Your task to perform on an android device: toggle notifications settings in the gmail app Image 0: 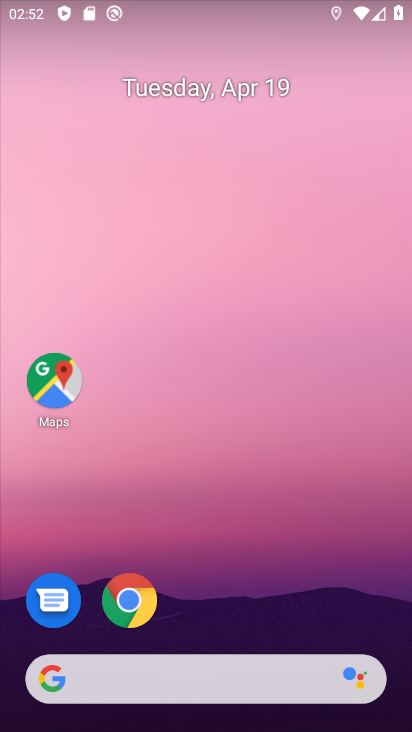
Step 0: click (309, 110)
Your task to perform on an android device: toggle notifications settings in the gmail app Image 1: 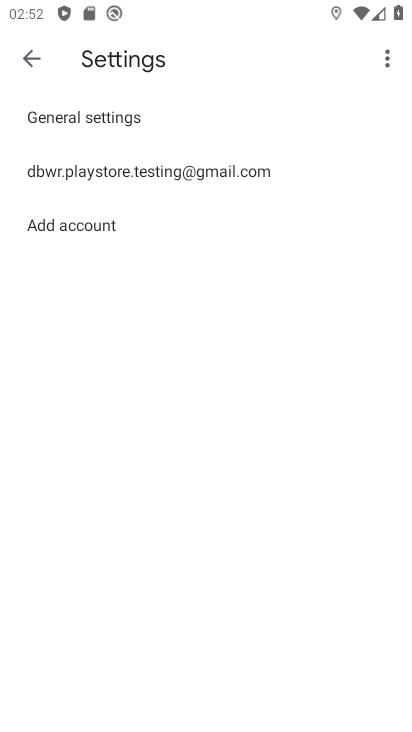
Step 1: press home button
Your task to perform on an android device: toggle notifications settings in the gmail app Image 2: 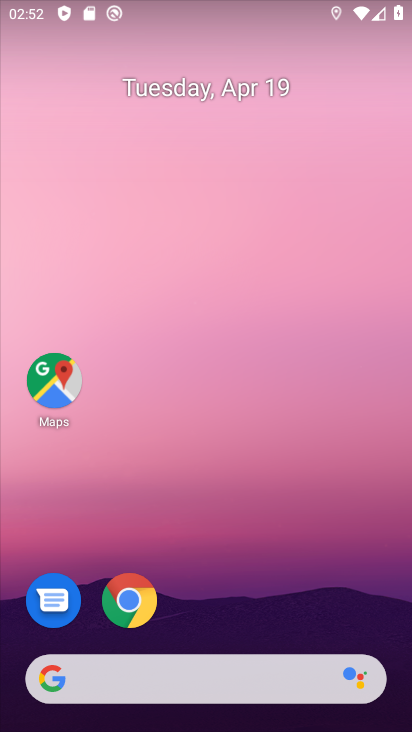
Step 2: drag from (310, 619) to (258, 181)
Your task to perform on an android device: toggle notifications settings in the gmail app Image 3: 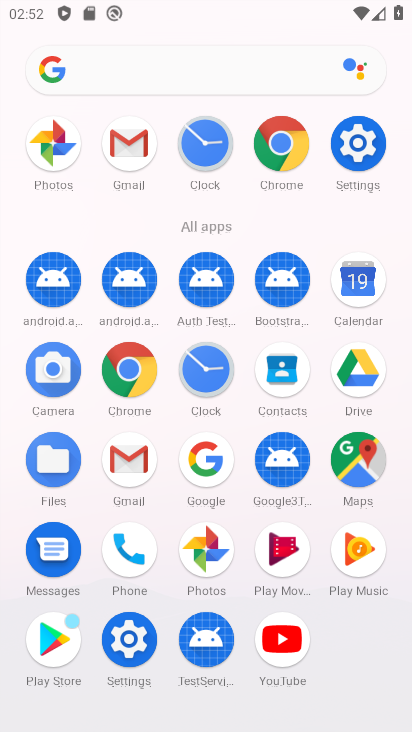
Step 3: click (124, 145)
Your task to perform on an android device: toggle notifications settings in the gmail app Image 4: 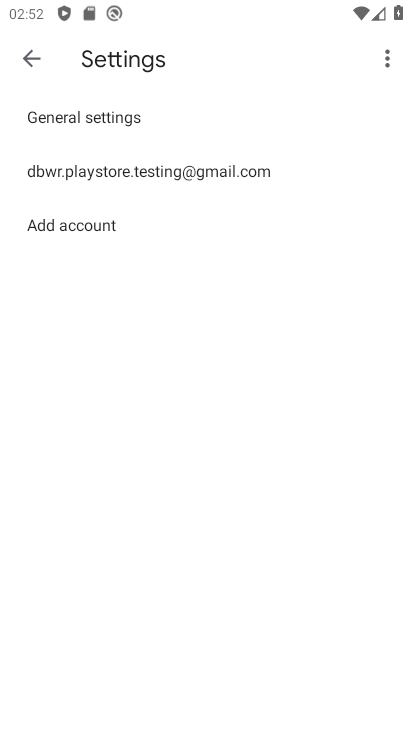
Step 4: click (129, 166)
Your task to perform on an android device: toggle notifications settings in the gmail app Image 5: 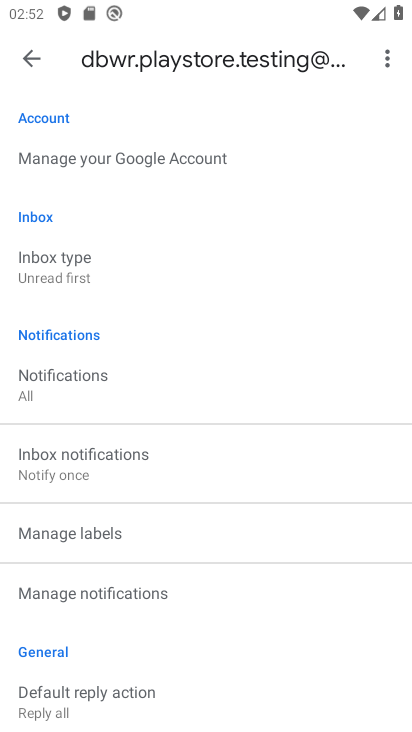
Step 5: click (152, 603)
Your task to perform on an android device: toggle notifications settings in the gmail app Image 6: 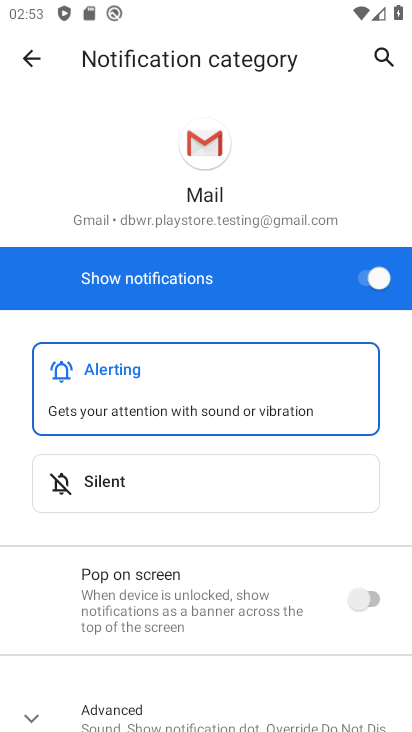
Step 6: drag from (243, 671) to (256, 330)
Your task to perform on an android device: toggle notifications settings in the gmail app Image 7: 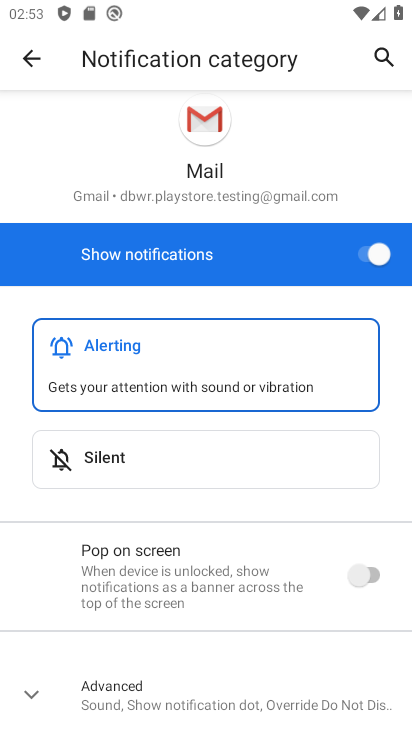
Step 7: click (379, 263)
Your task to perform on an android device: toggle notifications settings in the gmail app Image 8: 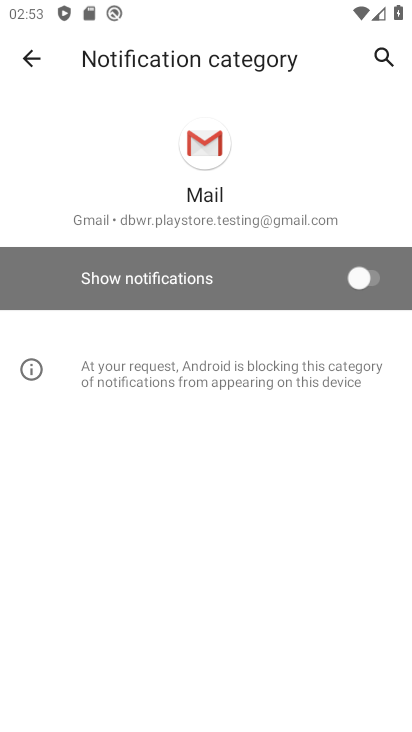
Step 8: task complete